Your task to perform on an android device: open a bookmark in the chrome app Image 0: 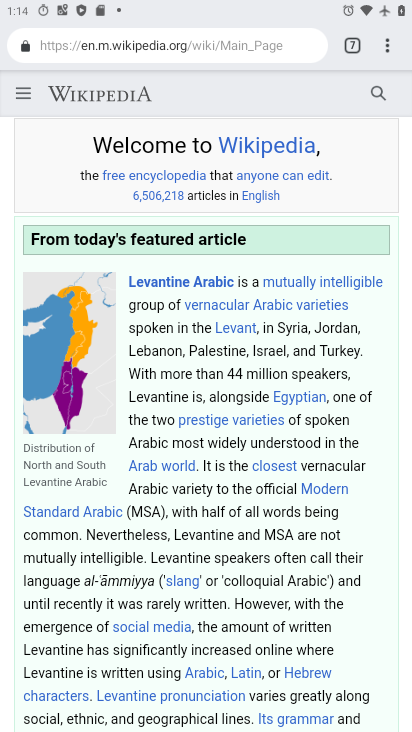
Step 0: press home button
Your task to perform on an android device: open a bookmark in the chrome app Image 1: 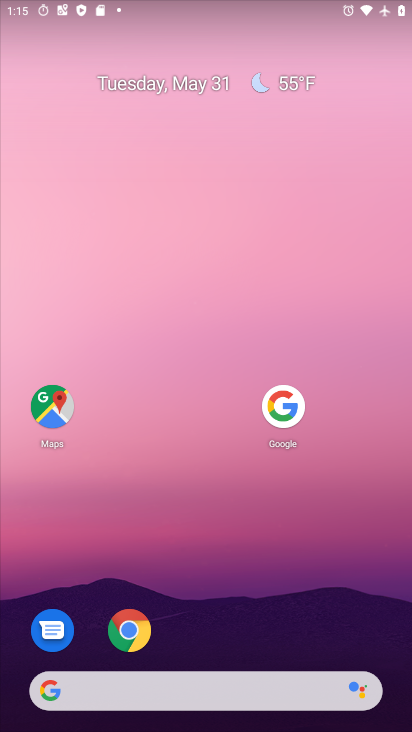
Step 1: click (129, 624)
Your task to perform on an android device: open a bookmark in the chrome app Image 2: 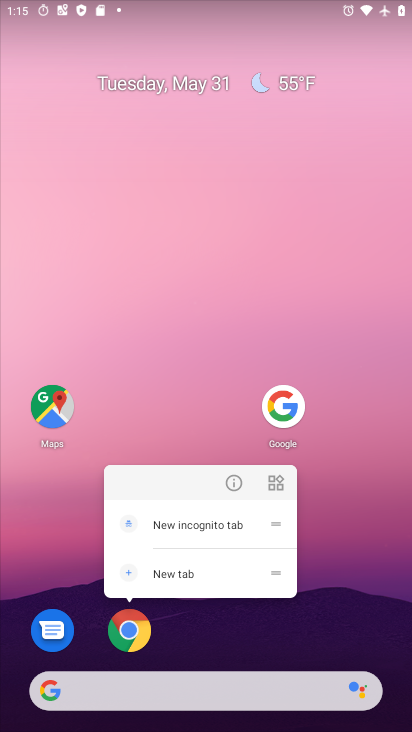
Step 2: click (137, 633)
Your task to perform on an android device: open a bookmark in the chrome app Image 3: 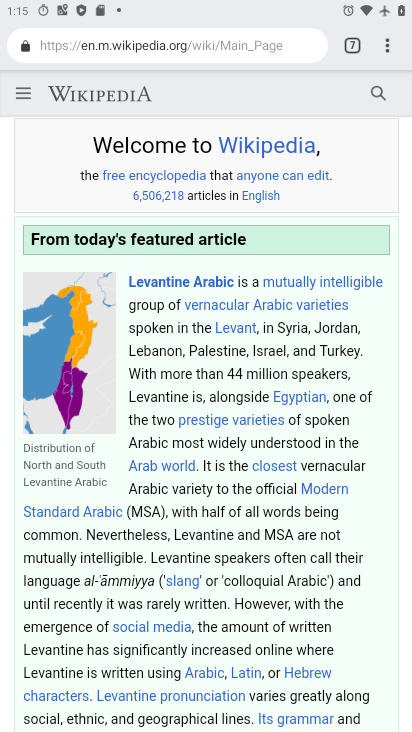
Step 3: click (389, 47)
Your task to perform on an android device: open a bookmark in the chrome app Image 4: 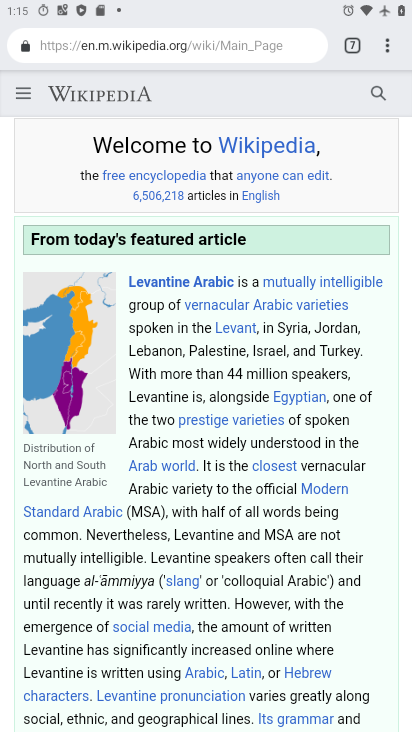
Step 4: task complete